Your task to perform on an android device: Open accessibility settings Image 0: 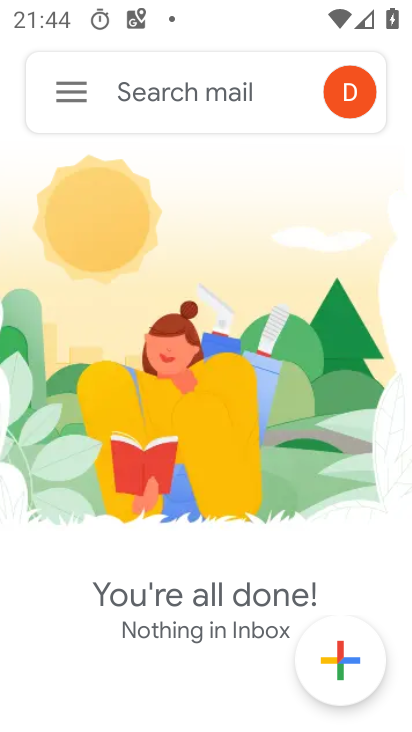
Step 0: press home button
Your task to perform on an android device: Open accessibility settings Image 1: 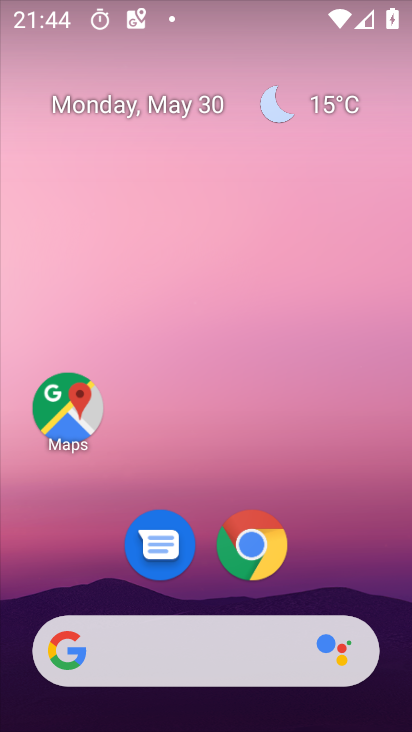
Step 1: drag from (315, 555) to (214, 114)
Your task to perform on an android device: Open accessibility settings Image 2: 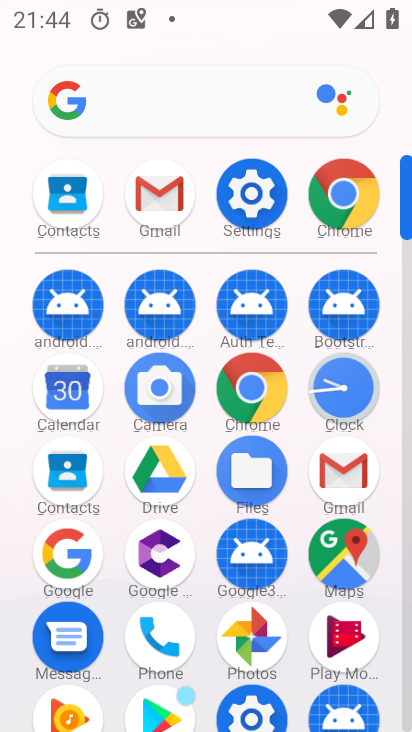
Step 2: click (252, 196)
Your task to perform on an android device: Open accessibility settings Image 3: 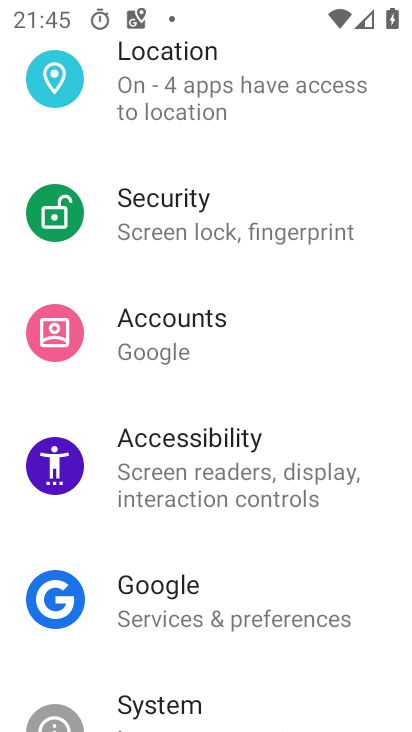
Step 3: click (222, 460)
Your task to perform on an android device: Open accessibility settings Image 4: 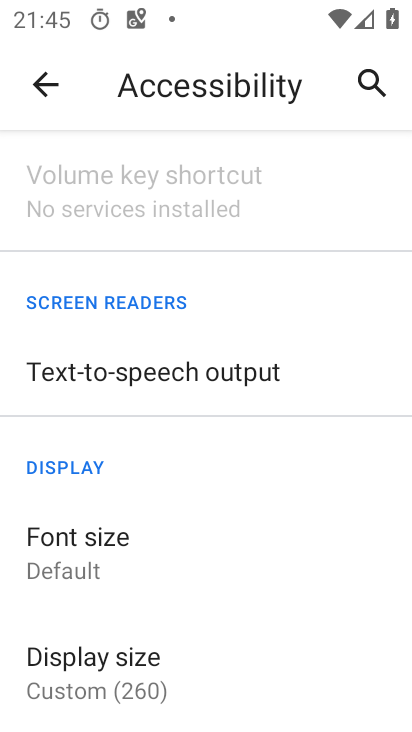
Step 4: task complete